Your task to perform on an android device: Go to accessibility settings Image 0: 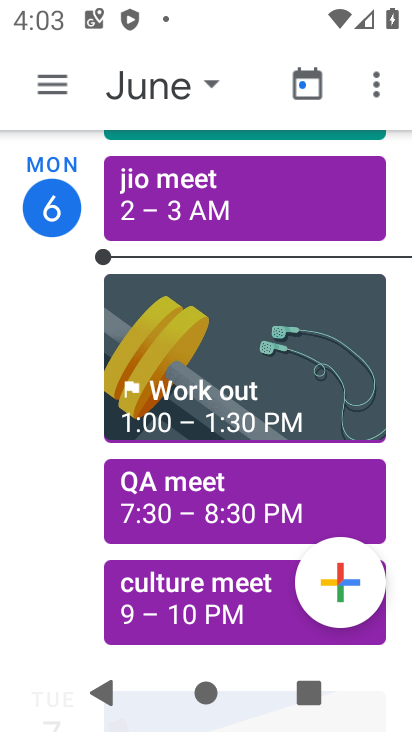
Step 0: press home button
Your task to perform on an android device: Go to accessibility settings Image 1: 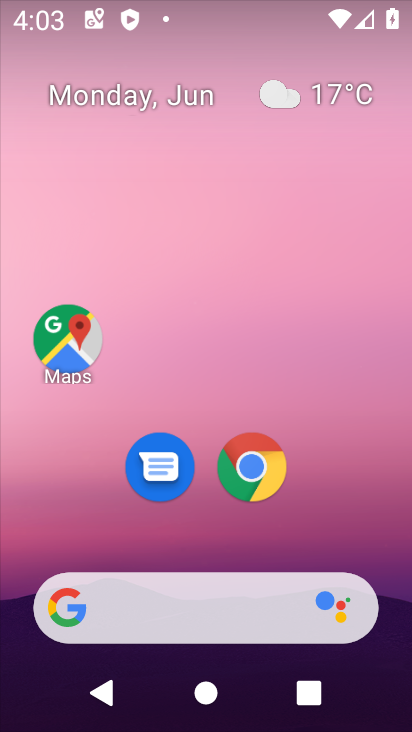
Step 1: drag from (211, 574) to (159, 5)
Your task to perform on an android device: Go to accessibility settings Image 2: 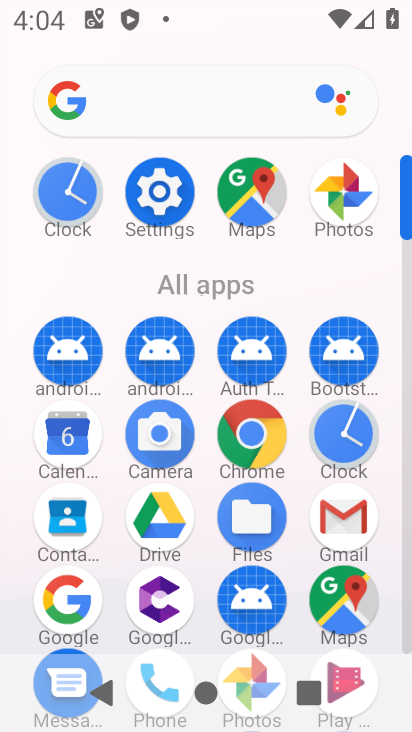
Step 2: click (163, 200)
Your task to perform on an android device: Go to accessibility settings Image 3: 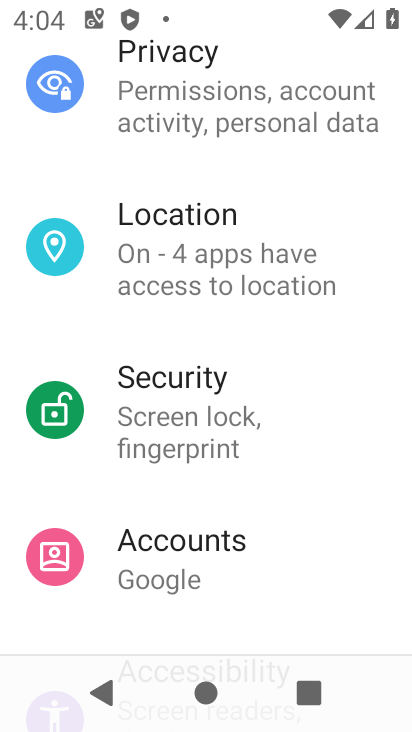
Step 3: drag from (182, 550) to (201, 330)
Your task to perform on an android device: Go to accessibility settings Image 4: 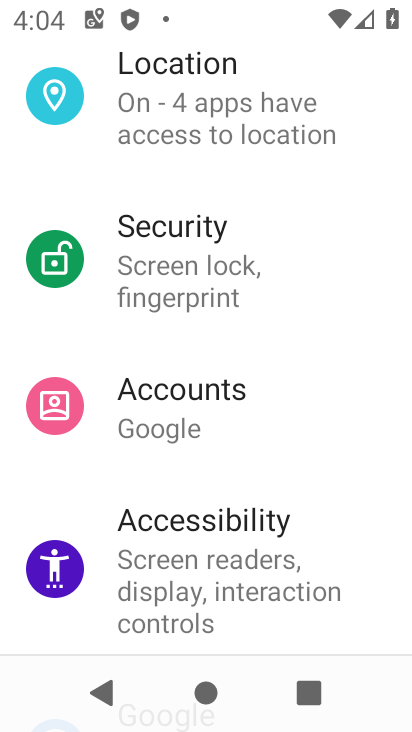
Step 4: click (184, 533)
Your task to perform on an android device: Go to accessibility settings Image 5: 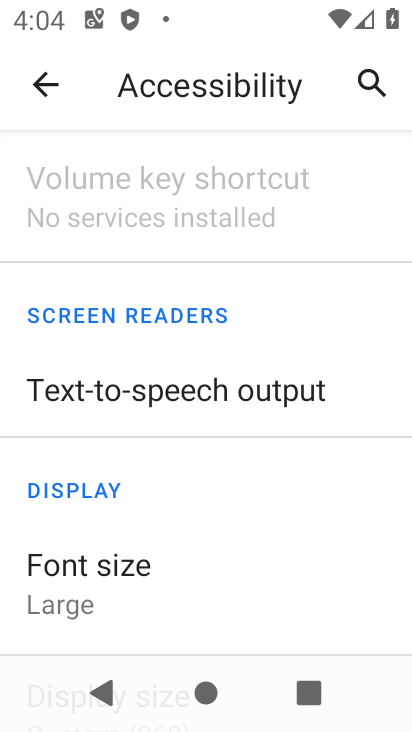
Step 5: task complete